Your task to perform on an android device: How do I get to the nearest Lowe's? Image 0: 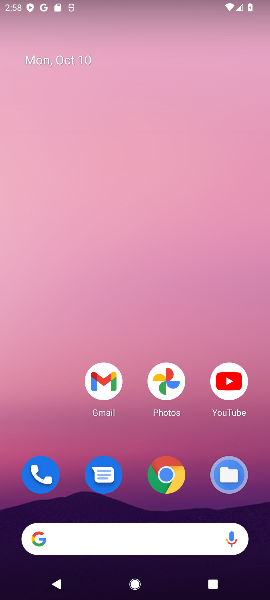
Step 0: drag from (112, 499) to (113, 229)
Your task to perform on an android device: How do I get to the nearest Lowe's? Image 1: 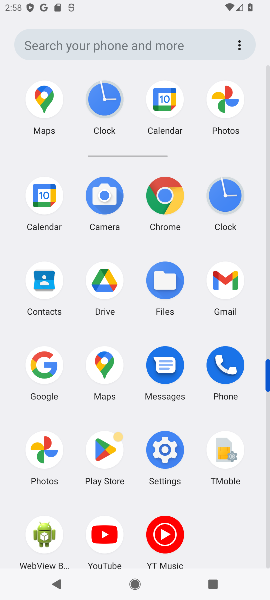
Step 1: click (113, 387)
Your task to perform on an android device: How do I get to the nearest Lowe's? Image 2: 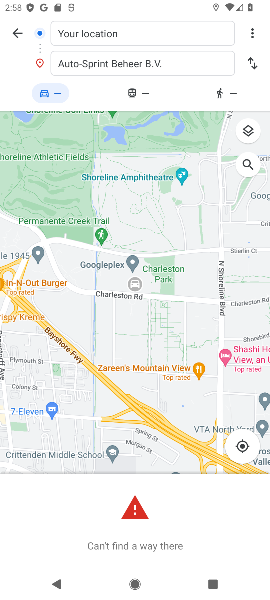
Step 2: click (186, 58)
Your task to perform on an android device: How do I get to the nearest Lowe's? Image 3: 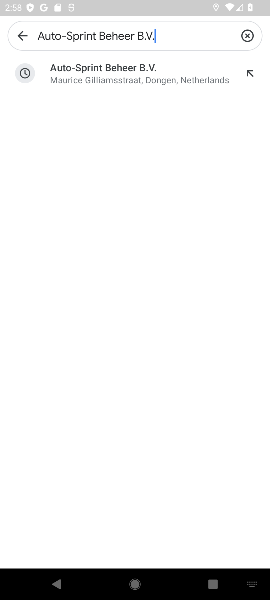
Step 3: click (23, 35)
Your task to perform on an android device: How do I get to the nearest Lowe's? Image 4: 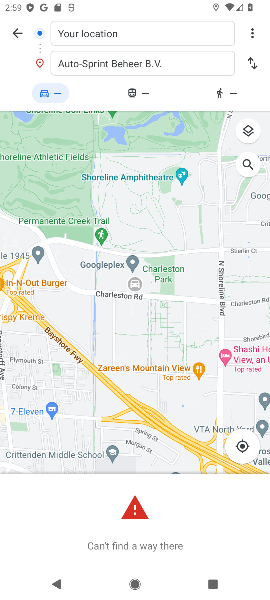
Step 4: click (23, 35)
Your task to perform on an android device: How do I get to the nearest Lowe's? Image 5: 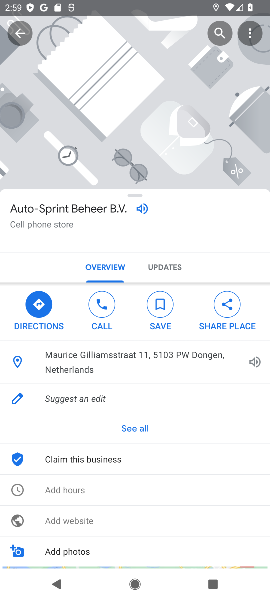
Step 5: click (22, 32)
Your task to perform on an android device: How do I get to the nearest Lowe's? Image 6: 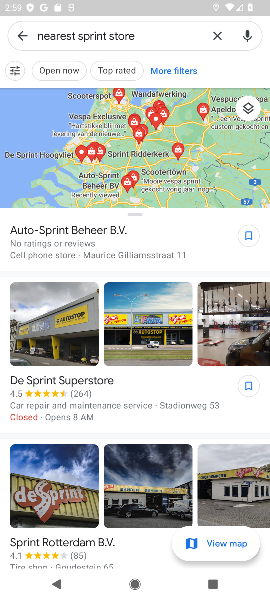
Step 6: click (218, 35)
Your task to perform on an android device: How do I get to the nearest Lowe's? Image 7: 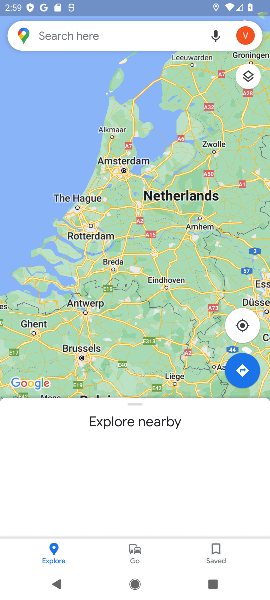
Step 7: click (139, 41)
Your task to perform on an android device: How do I get to the nearest Lowe's? Image 8: 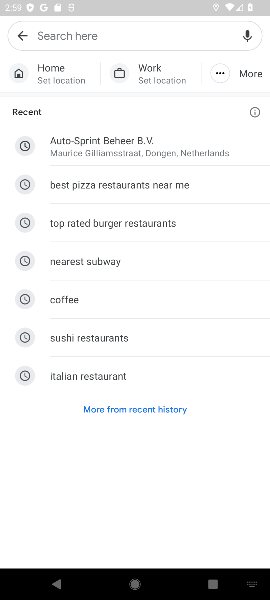
Step 8: type "nearest Lowe's"
Your task to perform on an android device: How do I get to the nearest Lowe's? Image 9: 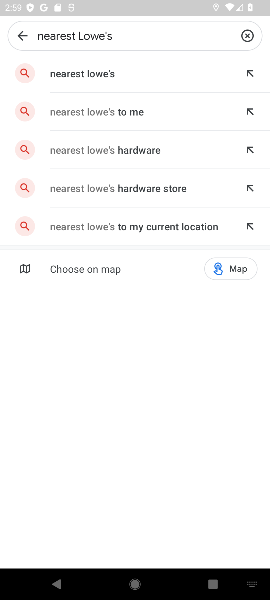
Step 9: click (112, 80)
Your task to perform on an android device: How do I get to the nearest Lowe's? Image 10: 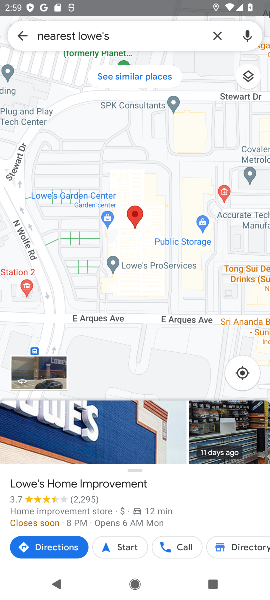
Step 10: task complete